Your task to perform on an android device: open a bookmark in the chrome app Image 0: 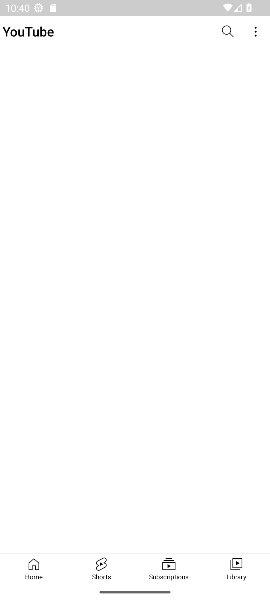
Step 0: drag from (100, 1) to (54, 118)
Your task to perform on an android device: open a bookmark in the chrome app Image 1: 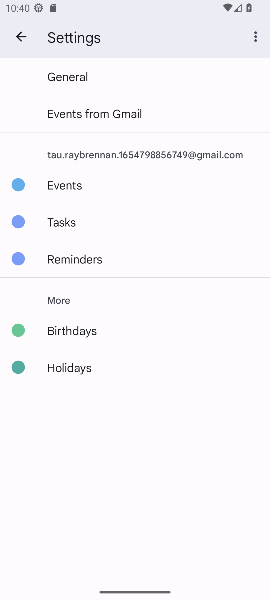
Step 1: press home button
Your task to perform on an android device: open a bookmark in the chrome app Image 2: 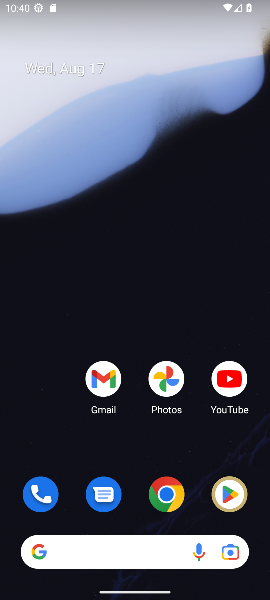
Step 2: click (162, 497)
Your task to perform on an android device: open a bookmark in the chrome app Image 3: 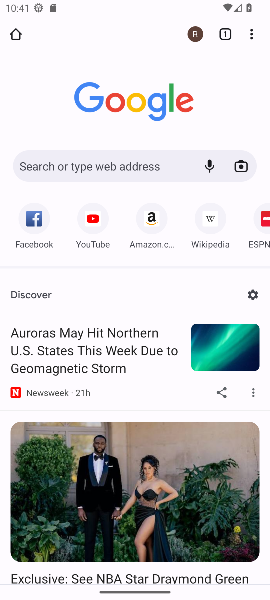
Step 3: click (246, 27)
Your task to perform on an android device: open a bookmark in the chrome app Image 4: 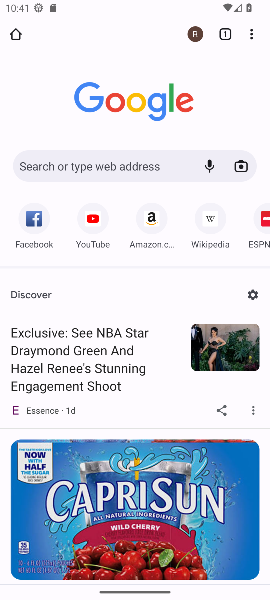
Step 4: click (249, 37)
Your task to perform on an android device: open a bookmark in the chrome app Image 5: 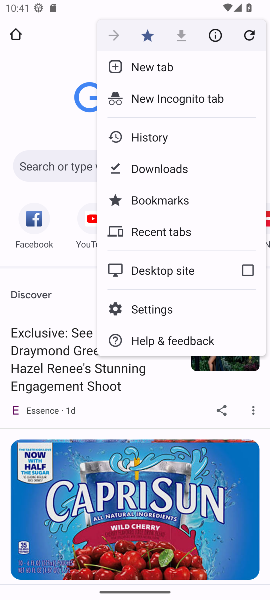
Step 5: click (150, 312)
Your task to perform on an android device: open a bookmark in the chrome app Image 6: 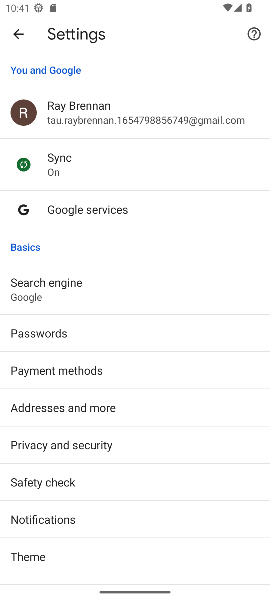
Step 6: click (16, 37)
Your task to perform on an android device: open a bookmark in the chrome app Image 7: 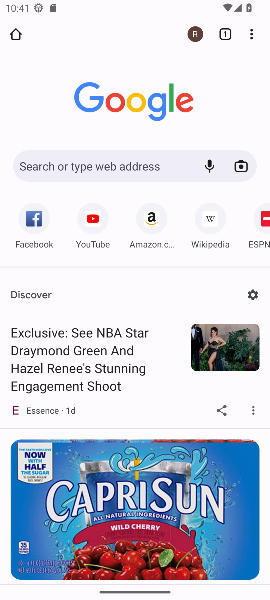
Step 7: click (251, 32)
Your task to perform on an android device: open a bookmark in the chrome app Image 8: 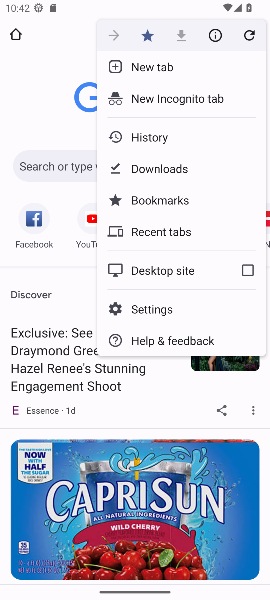
Step 8: click (144, 200)
Your task to perform on an android device: open a bookmark in the chrome app Image 9: 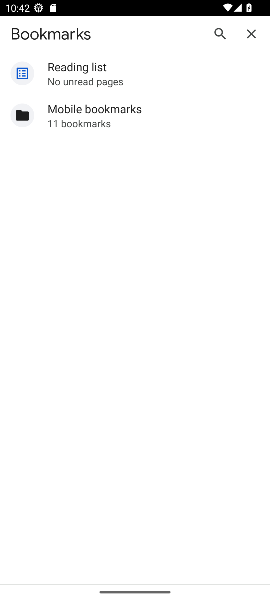
Step 9: click (111, 111)
Your task to perform on an android device: open a bookmark in the chrome app Image 10: 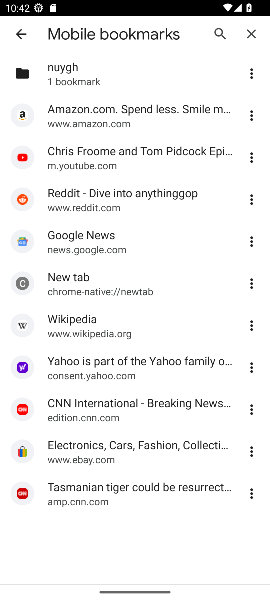
Step 10: click (117, 162)
Your task to perform on an android device: open a bookmark in the chrome app Image 11: 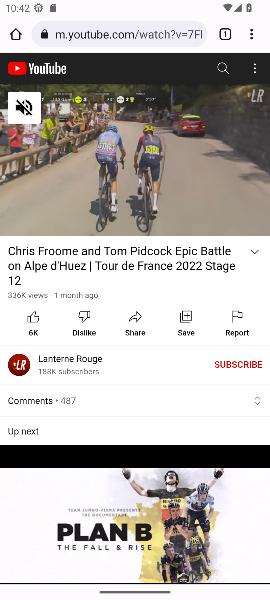
Step 11: task complete